Your task to perform on an android device: Clear all items from cart on amazon.com. Search for usb-c to usb-a on amazon.com, select the first entry, add it to the cart, then select checkout. Image 0: 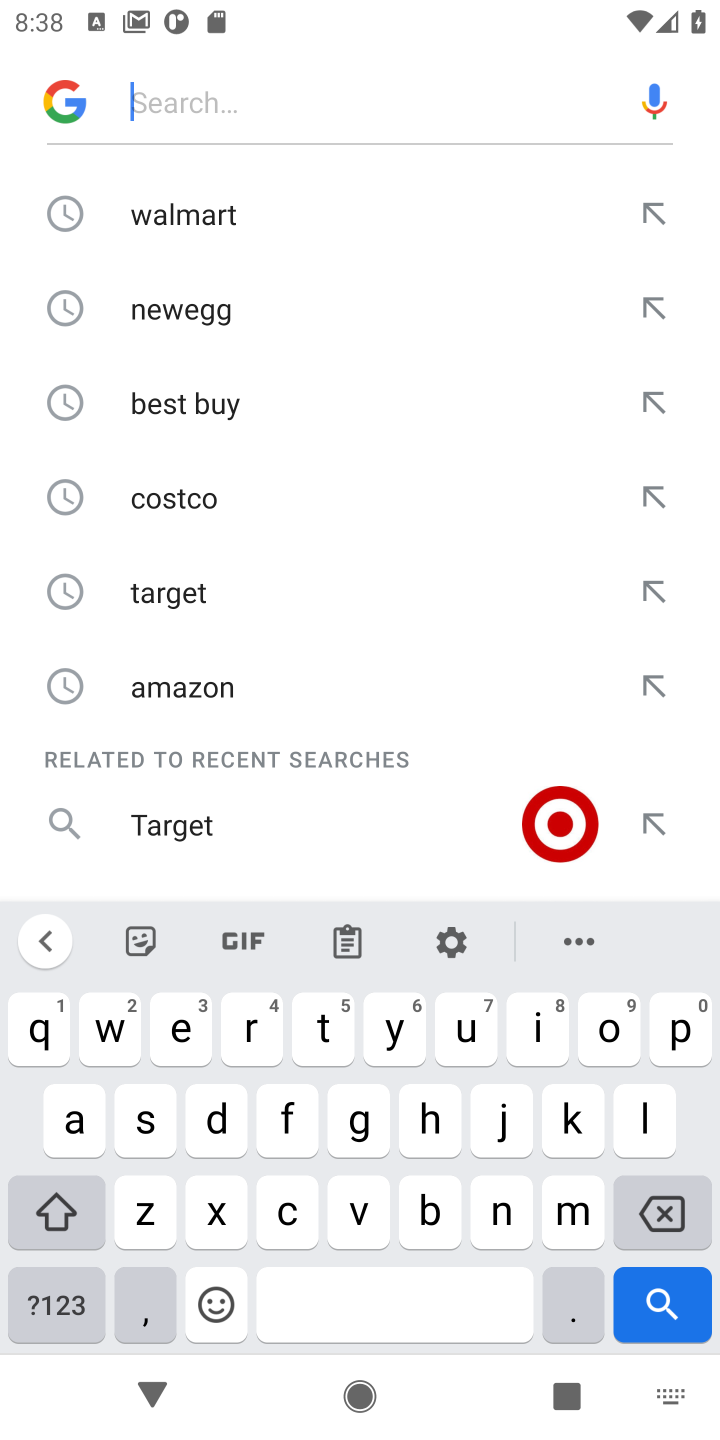
Step 0: click (291, 694)
Your task to perform on an android device: Clear all items from cart on amazon.com. Search for usb-c to usb-a on amazon.com, select the first entry, add it to the cart, then select checkout. Image 1: 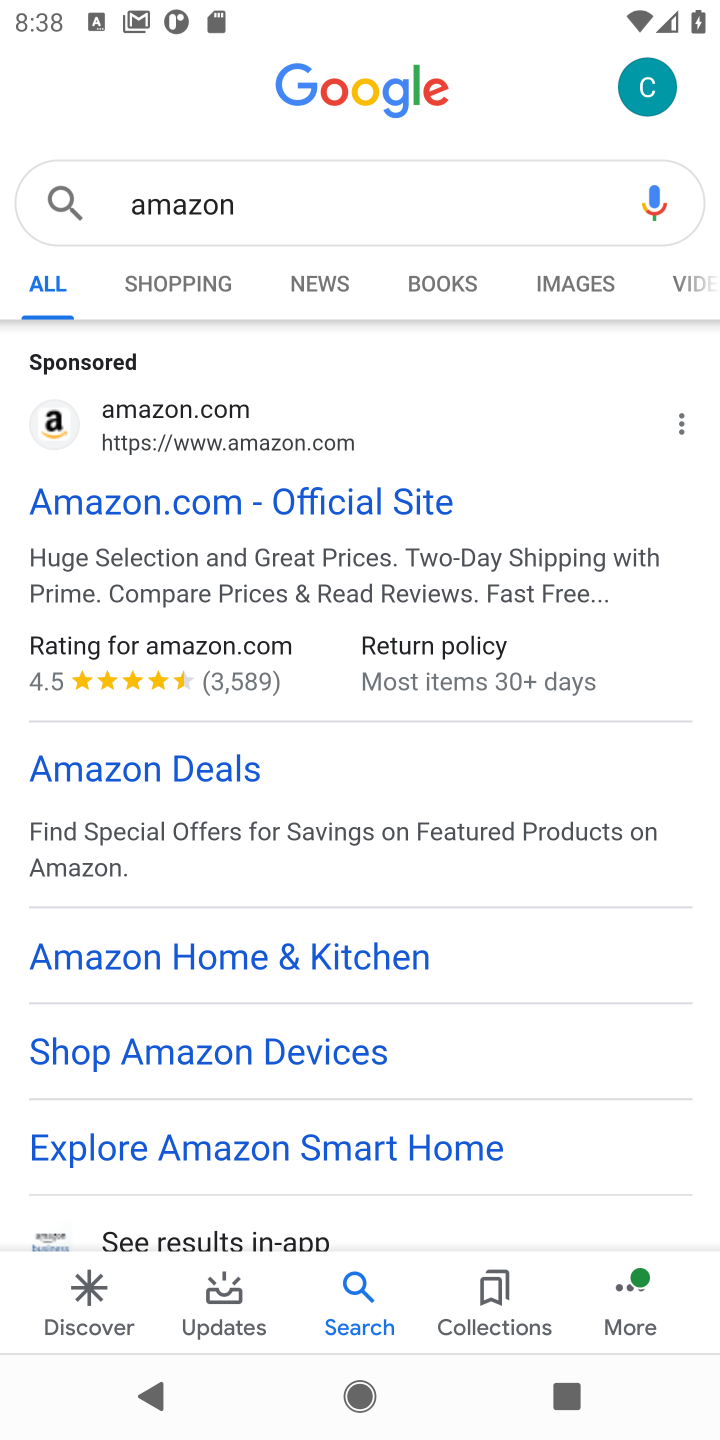
Step 1: click (185, 482)
Your task to perform on an android device: Clear all items from cart on amazon.com. Search for usb-c to usb-a on amazon.com, select the first entry, add it to the cart, then select checkout. Image 2: 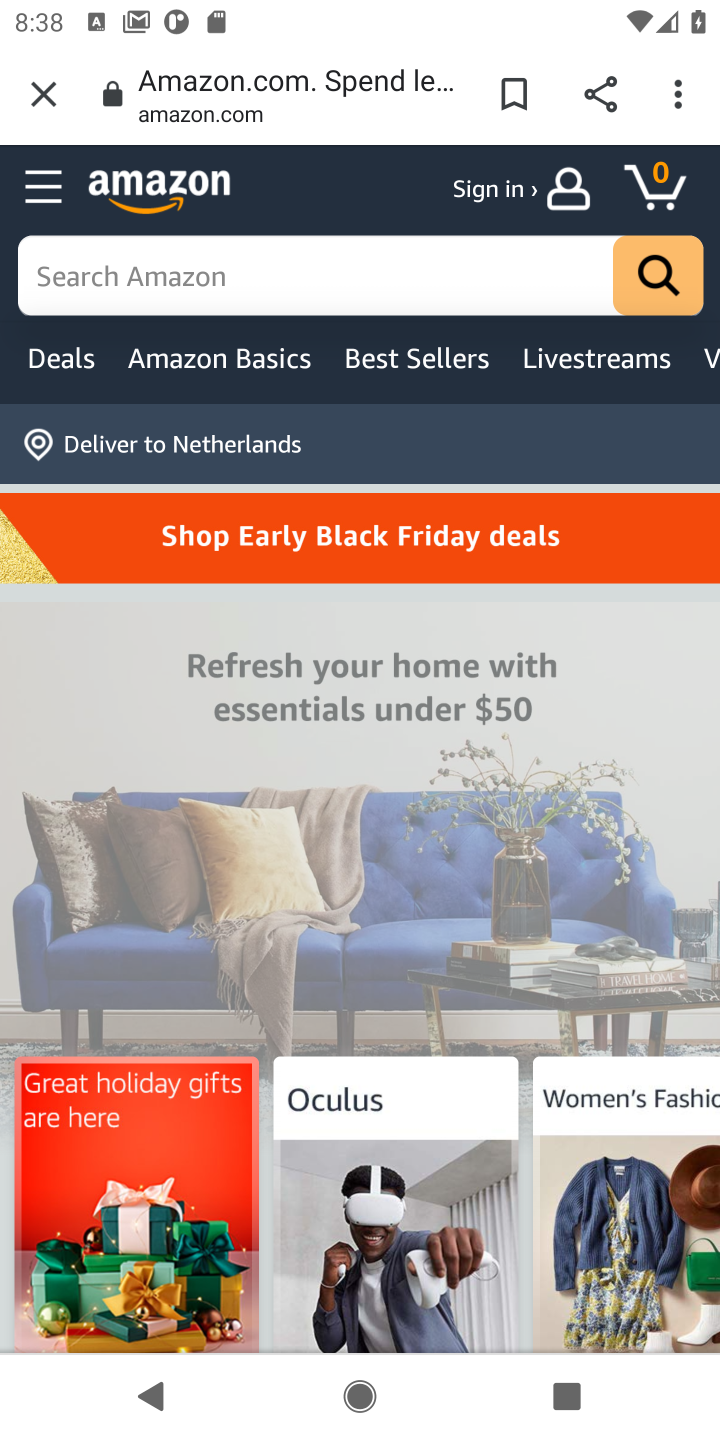
Step 2: click (173, 297)
Your task to perform on an android device: Clear all items from cart on amazon.com. Search for usb-c to usb-a on amazon.com, select the first entry, add it to the cart, then select checkout. Image 3: 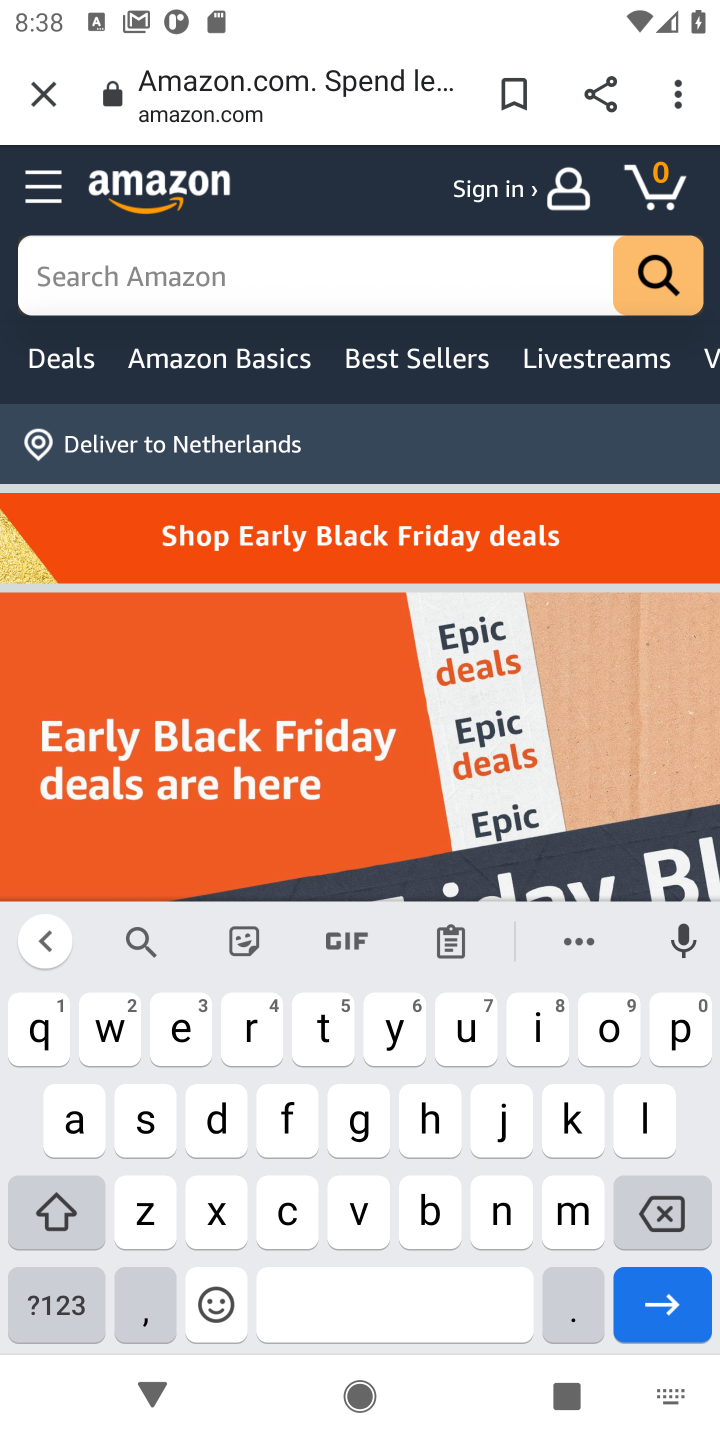
Step 3: type "usb-c to usb-a"
Your task to perform on an android device: Clear all items from cart on amazon.com. Search for usb-c to usb-a on amazon.com, select the first entry, add it to the cart, then select checkout. Image 4: 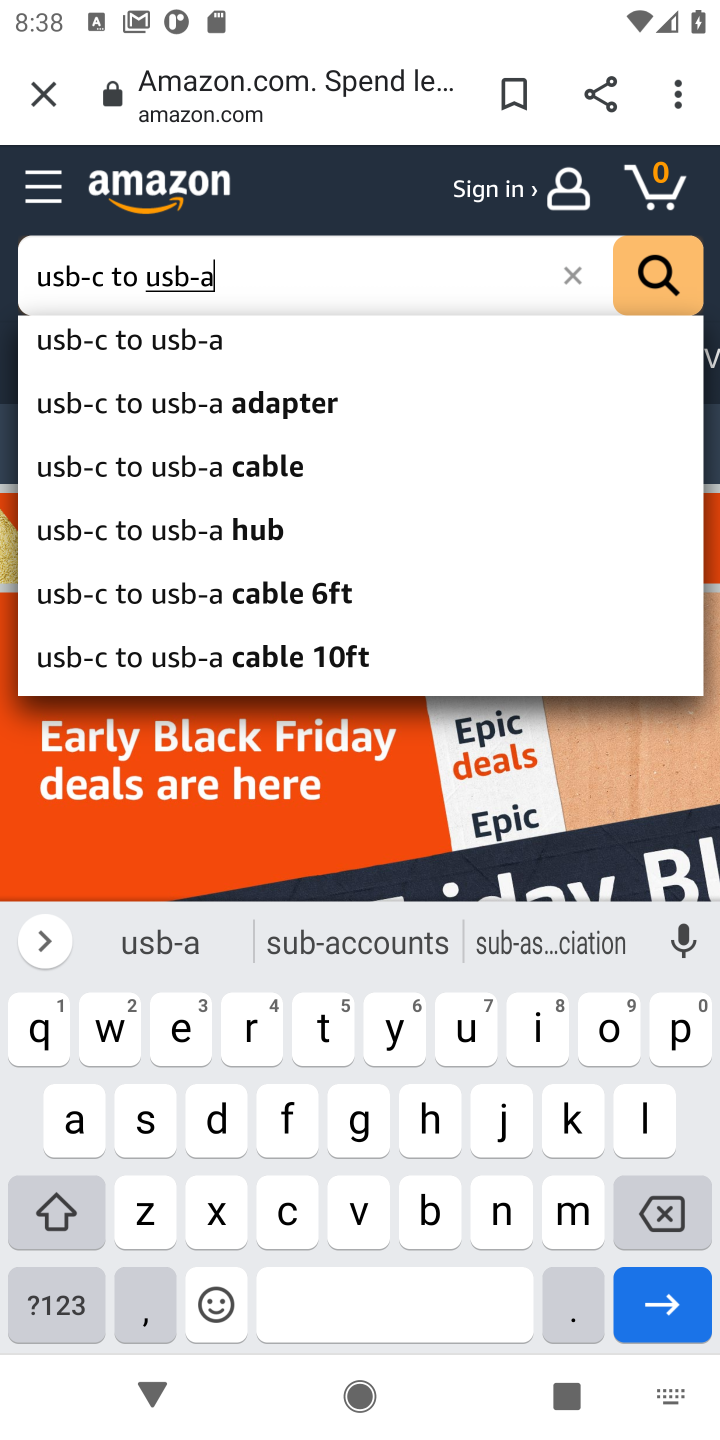
Step 4: click (657, 302)
Your task to perform on an android device: Clear all items from cart on amazon.com. Search for usb-c to usb-a on amazon.com, select the first entry, add it to the cart, then select checkout. Image 5: 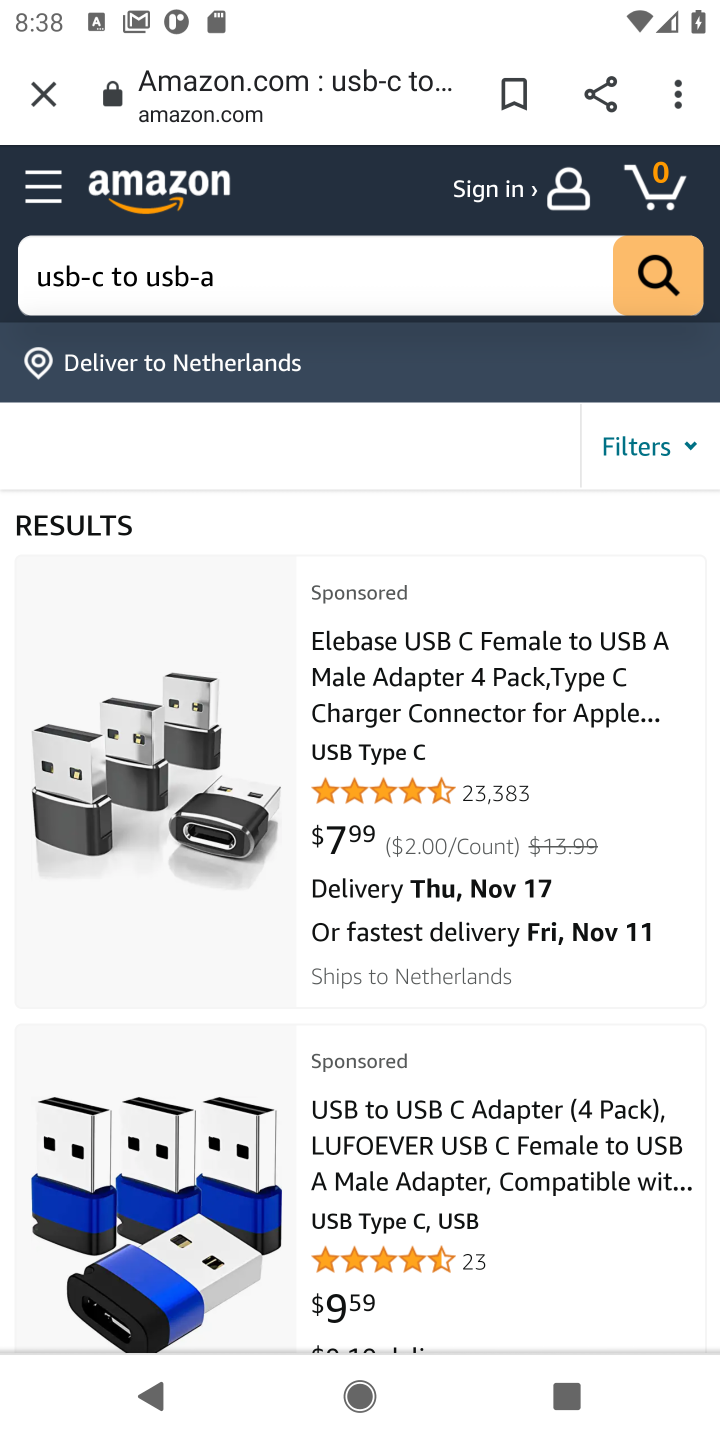
Step 5: click (533, 735)
Your task to perform on an android device: Clear all items from cart on amazon.com. Search for usb-c to usb-a on amazon.com, select the first entry, add it to the cart, then select checkout. Image 6: 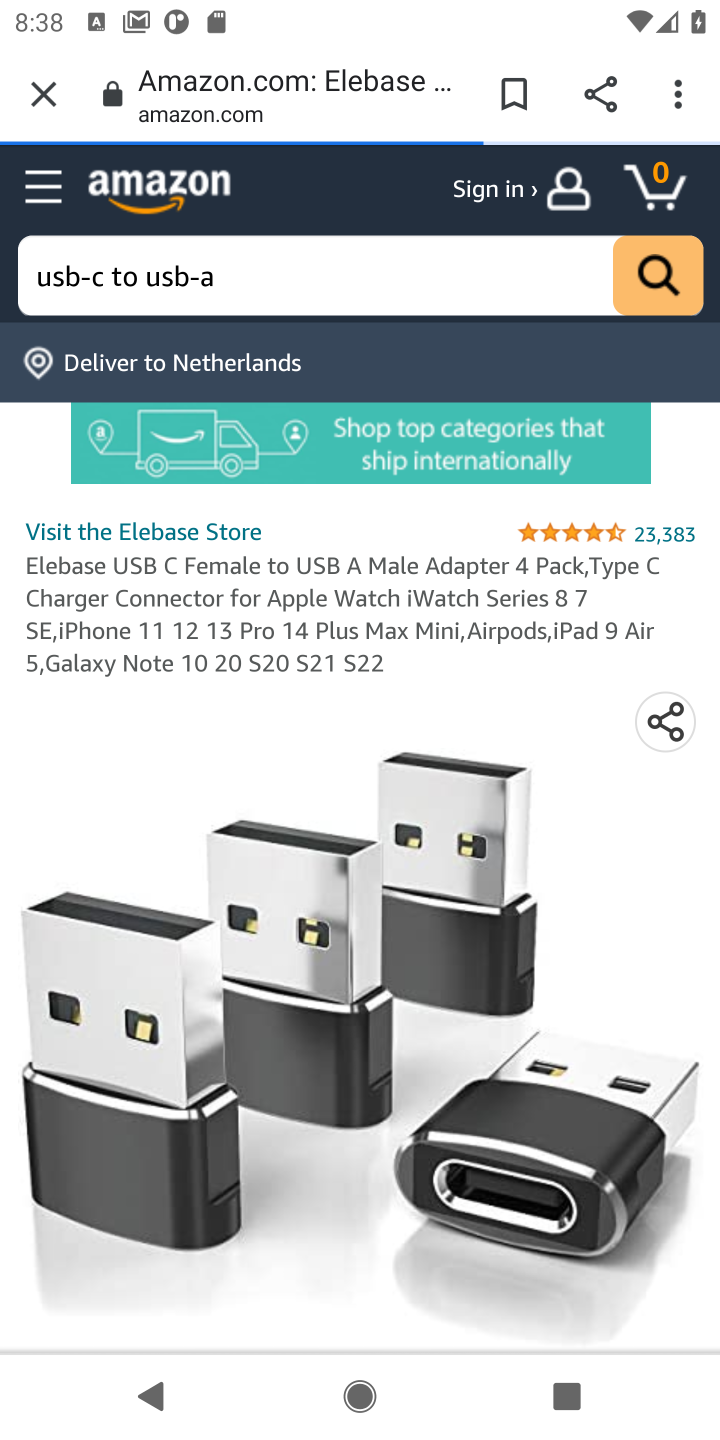
Step 6: task complete